Your task to perform on an android device: Go to display settings Image 0: 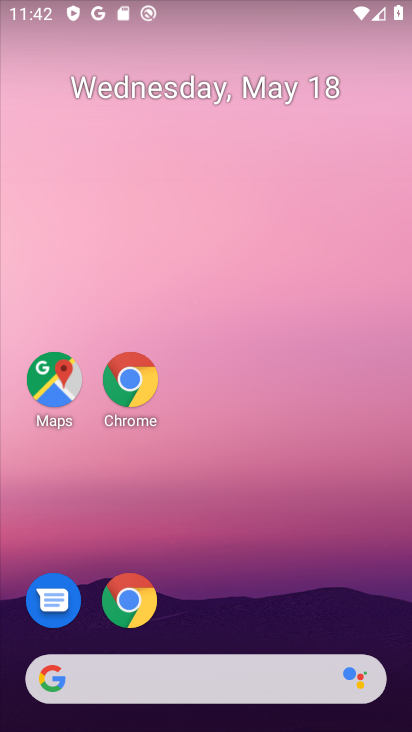
Step 0: drag from (374, 703) to (244, 188)
Your task to perform on an android device: Go to display settings Image 1: 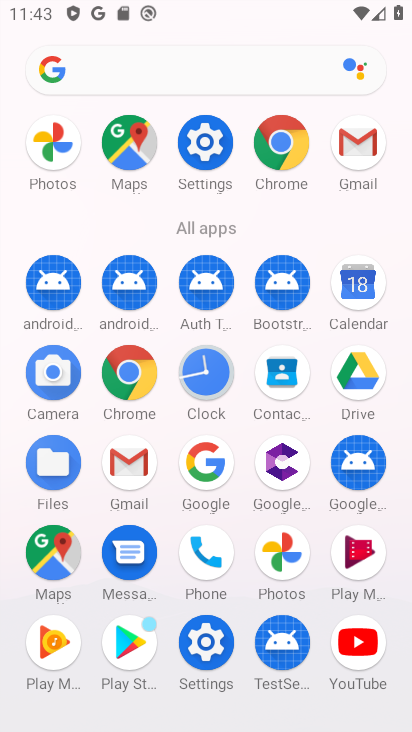
Step 1: click (204, 139)
Your task to perform on an android device: Go to display settings Image 2: 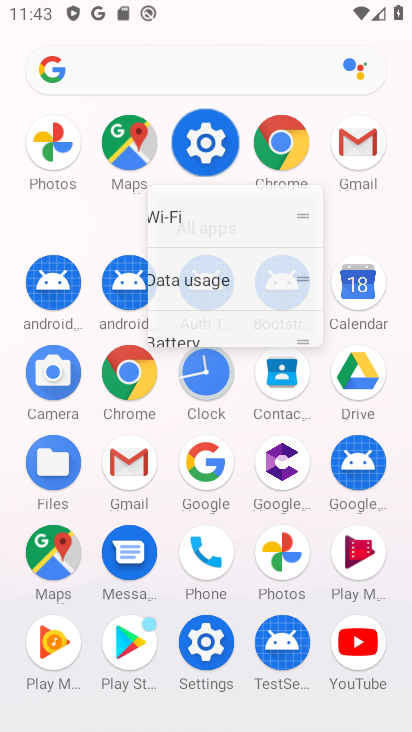
Step 2: click (207, 140)
Your task to perform on an android device: Go to display settings Image 3: 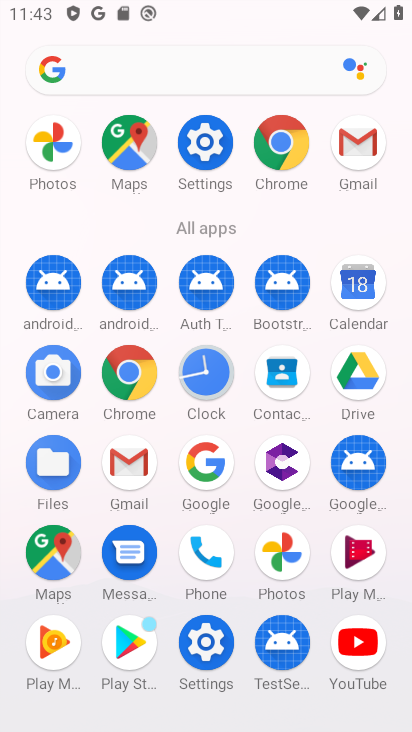
Step 3: click (207, 148)
Your task to perform on an android device: Go to display settings Image 4: 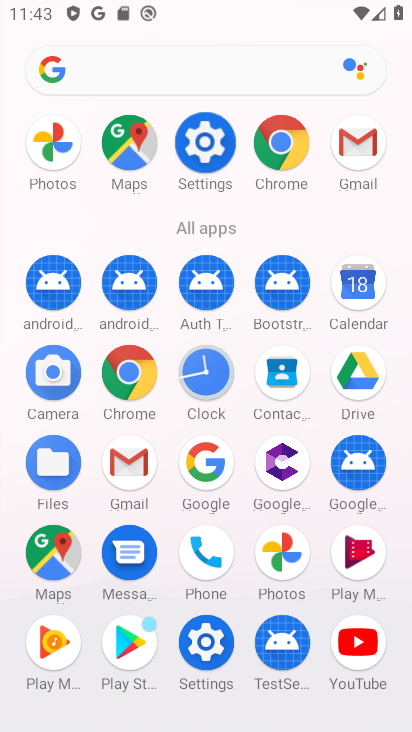
Step 4: click (207, 148)
Your task to perform on an android device: Go to display settings Image 5: 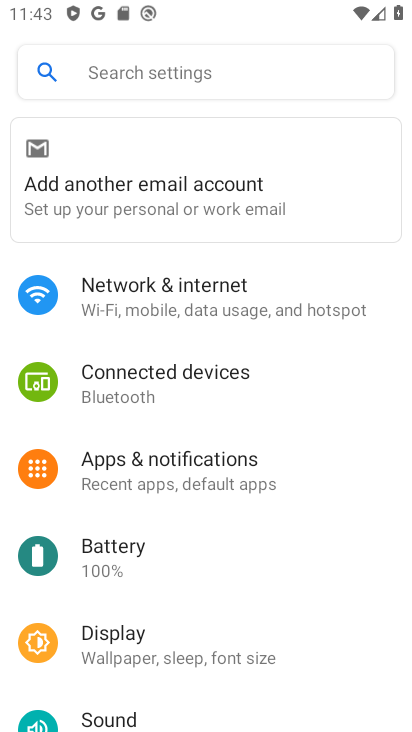
Step 5: click (132, 632)
Your task to perform on an android device: Go to display settings Image 6: 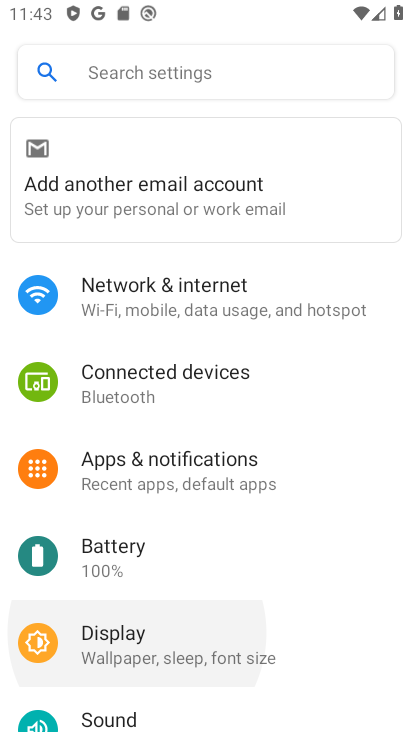
Step 6: click (130, 633)
Your task to perform on an android device: Go to display settings Image 7: 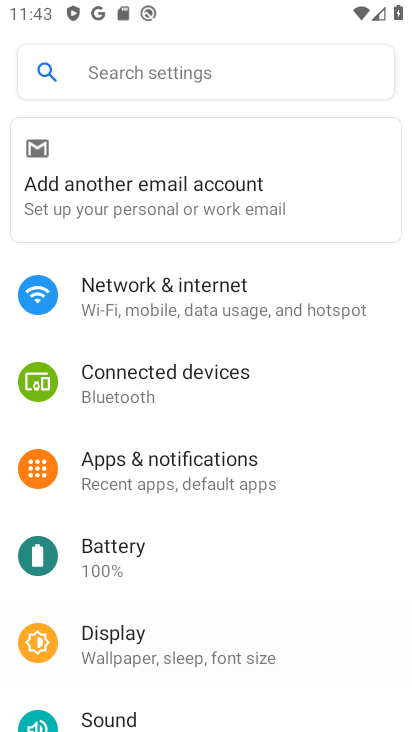
Step 7: click (130, 637)
Your task to perform on an android device: Go to display settings Image 8: 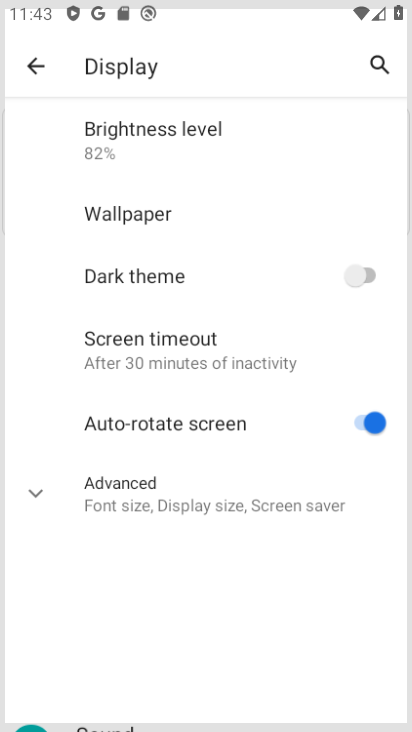
Step 8: click (128, 633)
Your task to perform on an android device: Go to display settings Image 9: 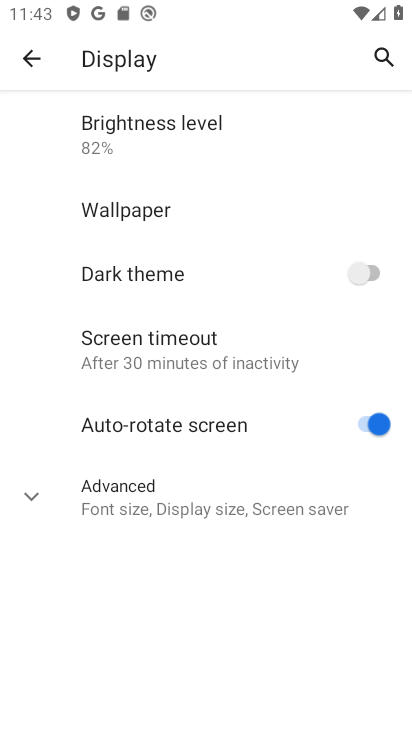
Step 9: task complete